Your task to perform on an android device: open app "Truecaller" (install if not already installed) Image 0: 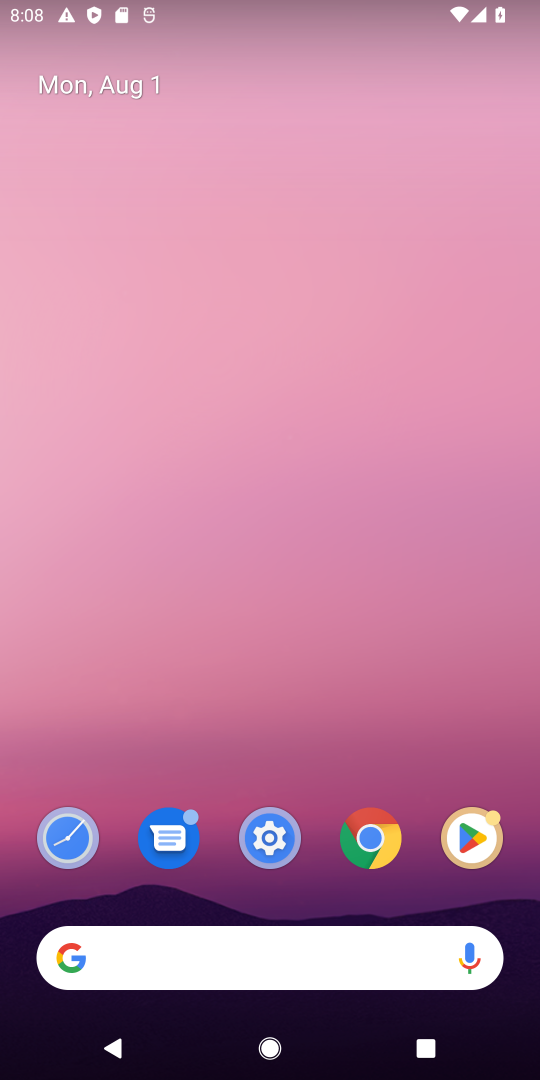
Step 0: drag from (208, 894) to (185, 407)
Your task to perform on an android device: open app "Truecaller" (install if not already installed) Image 1: 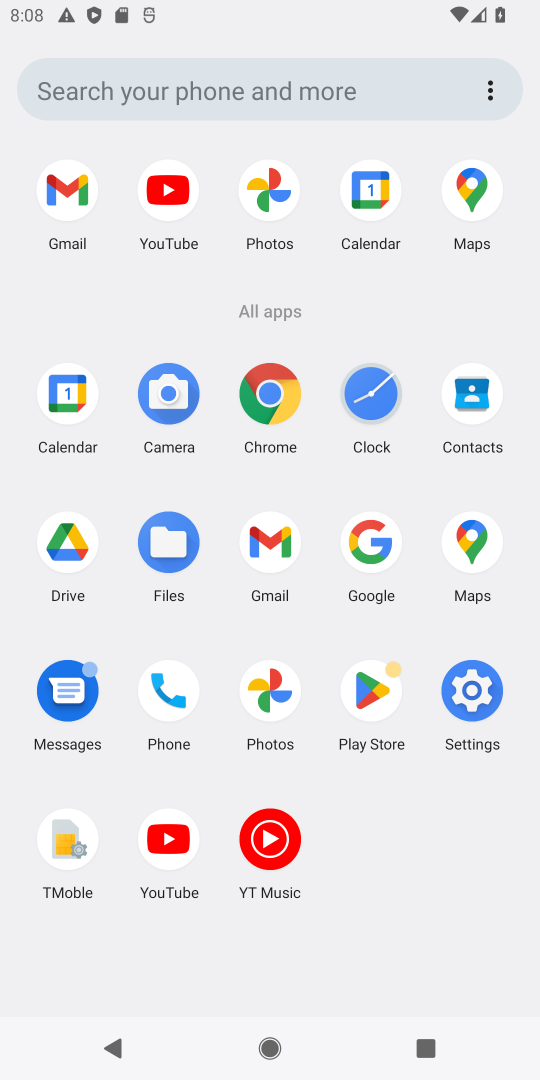
Step 1: click (375, 682)
Your task to perform on an android device: open app "Truecaller" (install if not already installed) Image 2: 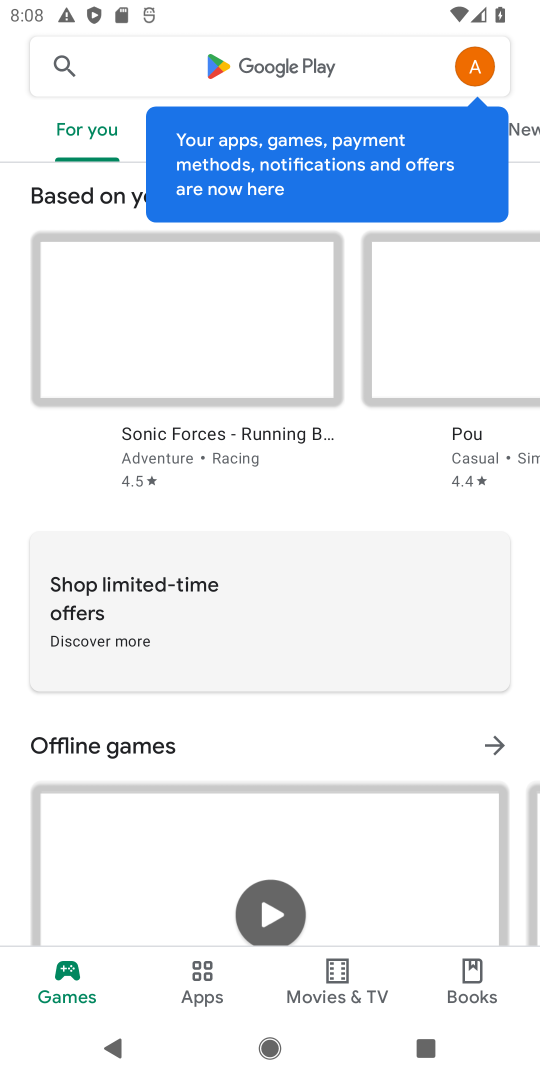
Step 2: click (371, 47)
Your task to perform on an android device: open app "Truecaller" (install if not already installed) Image 3: 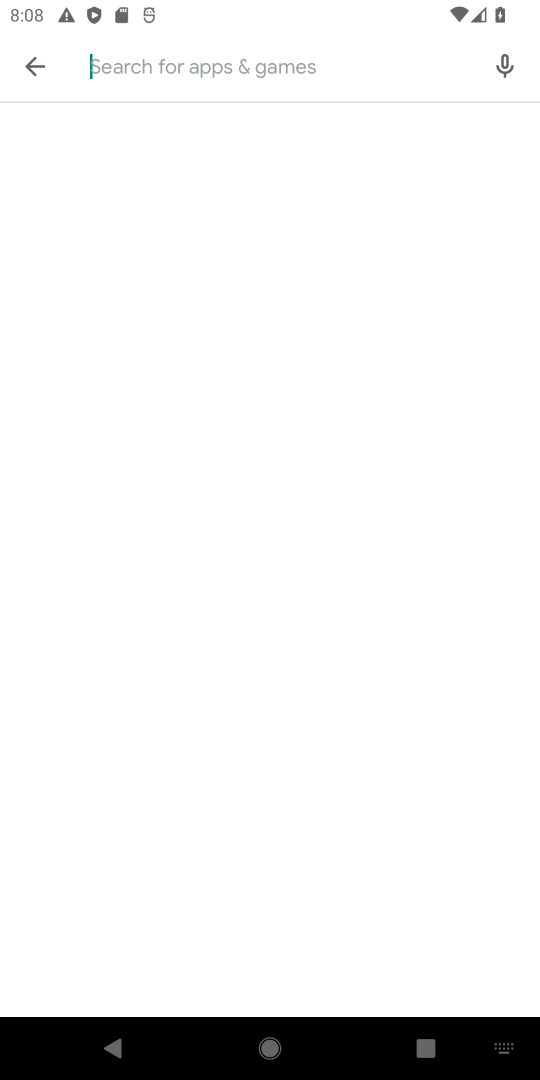
Step 3: type "truecaller"
Your task to perform on an android device: open app "Truecaller" (install if not already installed) Image 4: 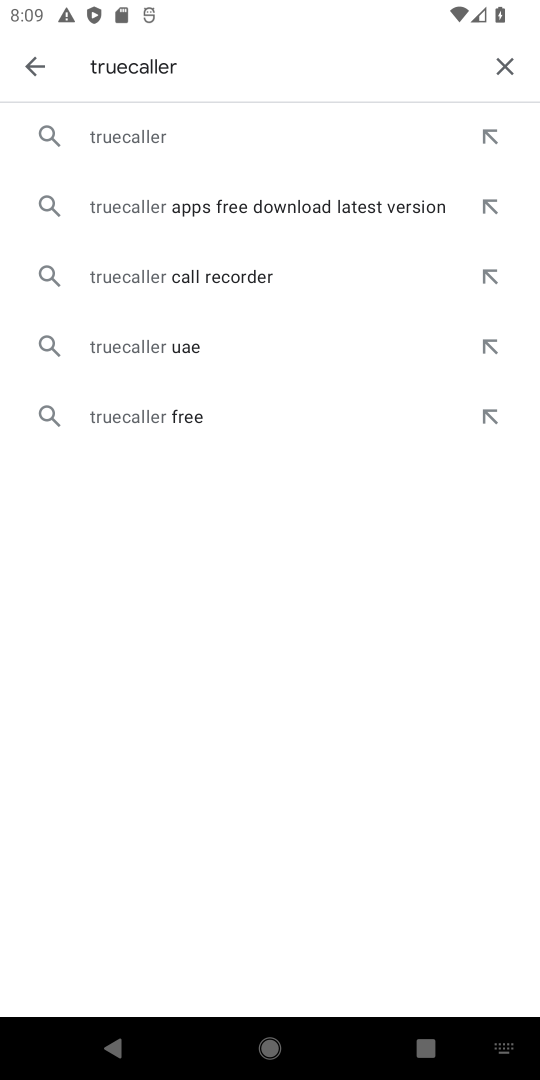
Step 4: click (207, 136)
Your task to perform on an android device: open app "Truecaller" (install if not already installed) Image 5: 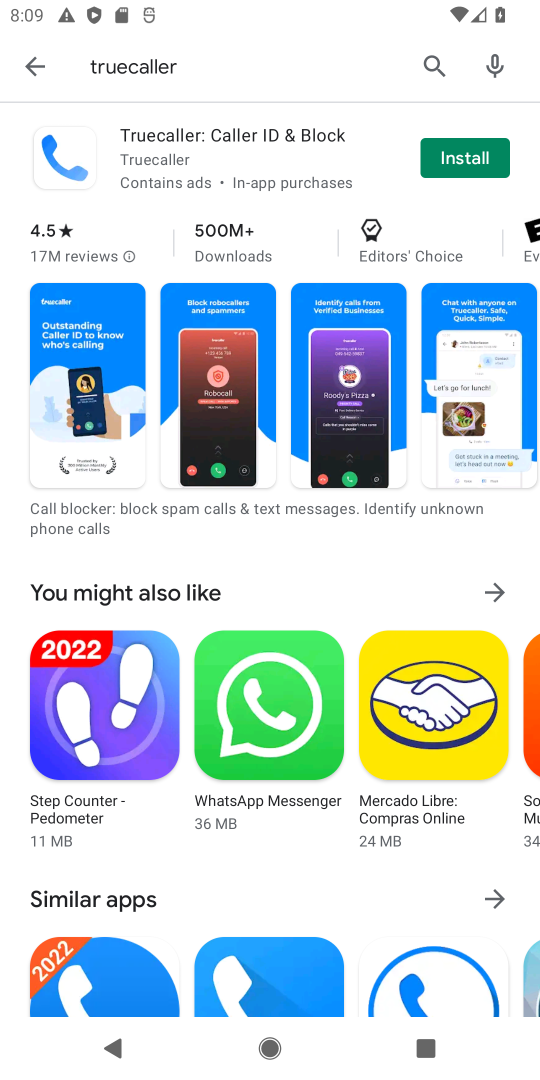
Step 5: click (477, 165)
Your task to perform on an android device: open app "Truecaller" (install if not already installed) Image 6: 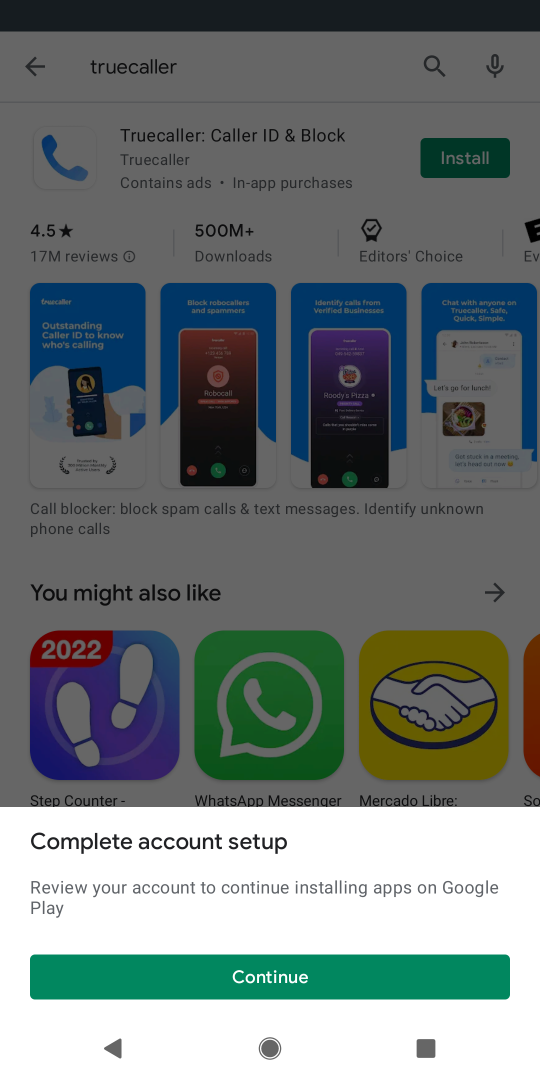
Step 6: click (327, 962)
Your task to perform on an android device: open app "Truecaller" (install if not already installed) Image 7: 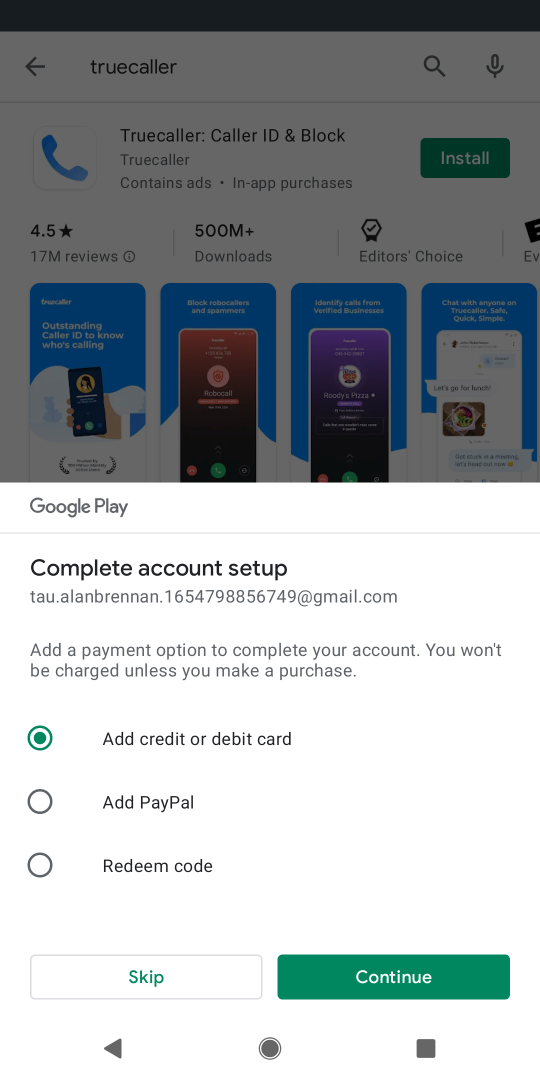
Step 7: click (170, 977)
Your task to perform on an android device: open app "Truecaller" (install if not already installed) Image 8: 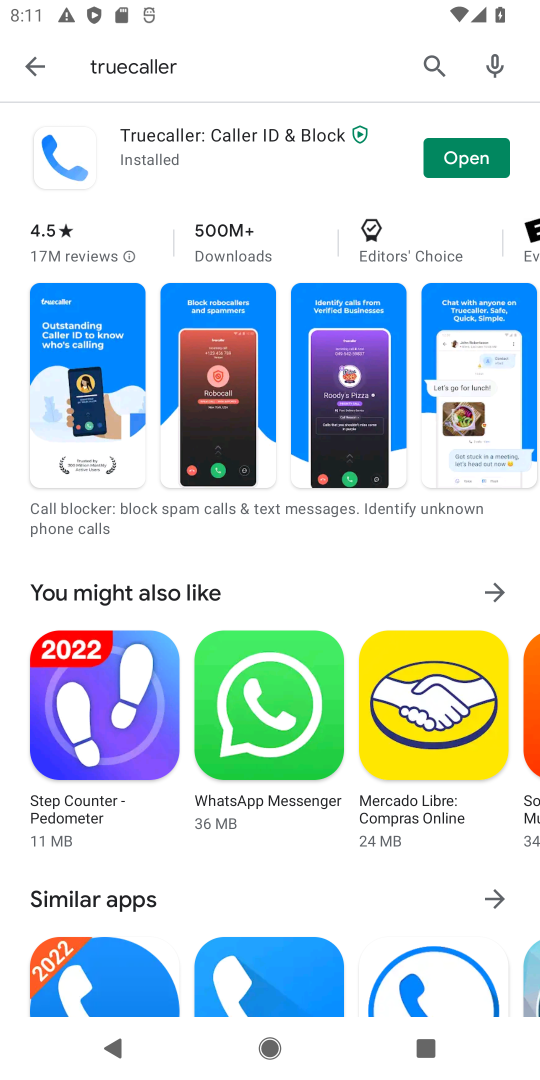
Step 8: task complete